Your task to perform on an android device: turn on wifi Image 0: 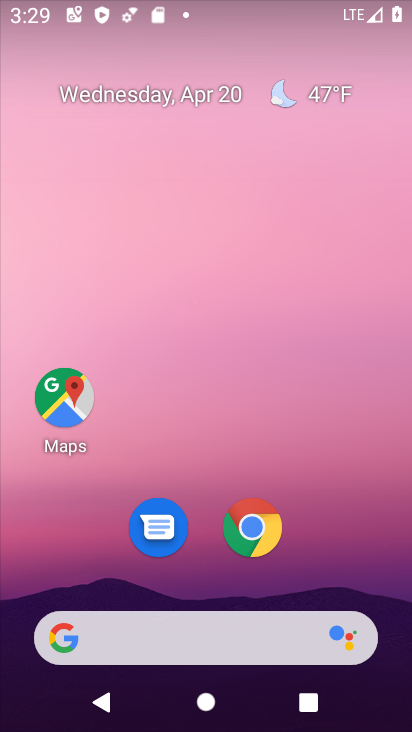
Step 0: drag from (333, 459) to (333, 68)
Your task to perform on an android device: turn on wifi Image 1: 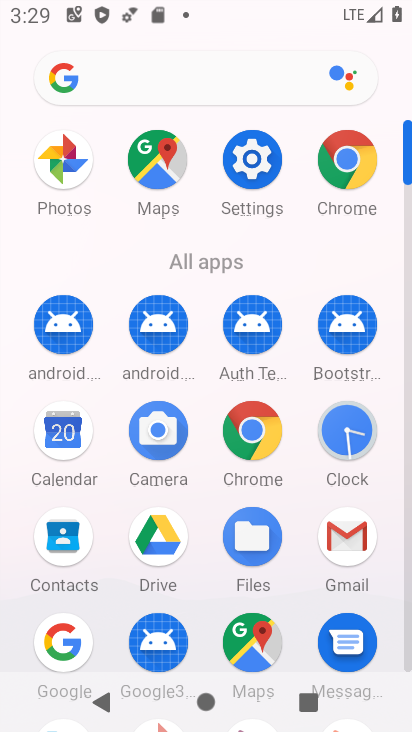
Step 1: click (260, 168)
Your task to perform on an android device: turn on wifi Image 2: 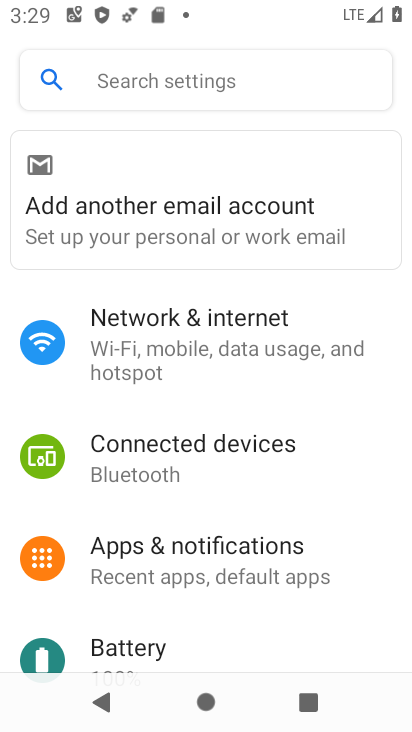
Step 2: click (194, 339)
Your task to perform on an android device: turn on wifi Image 3: 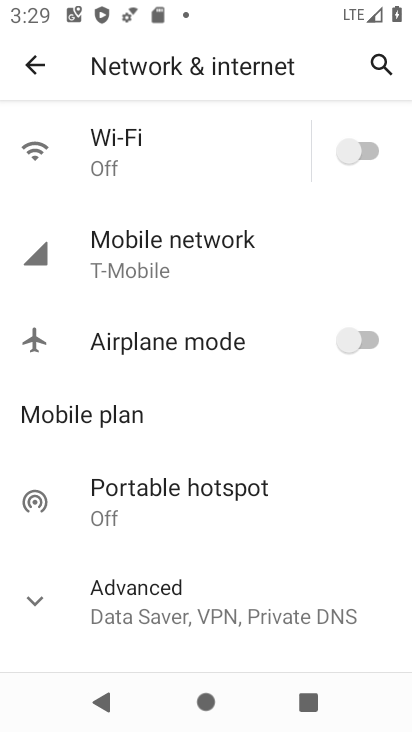
Step 3: click (149, 173)
Your task to perform on an android device: turn on wifi Image 4: 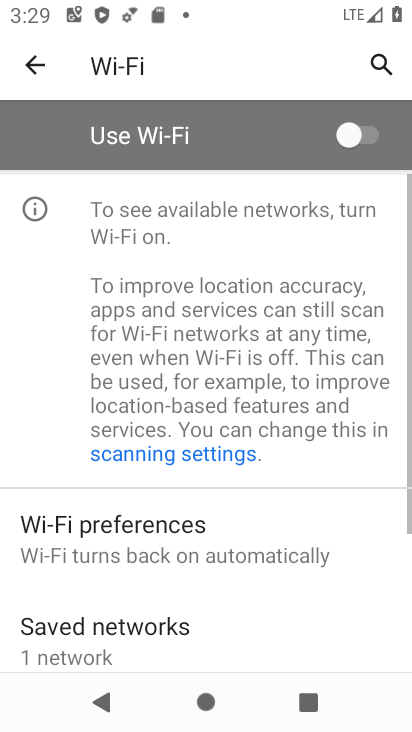
Step 4: click (358, 141)
Your task to perform on an android device: turn on wifi Image 5: 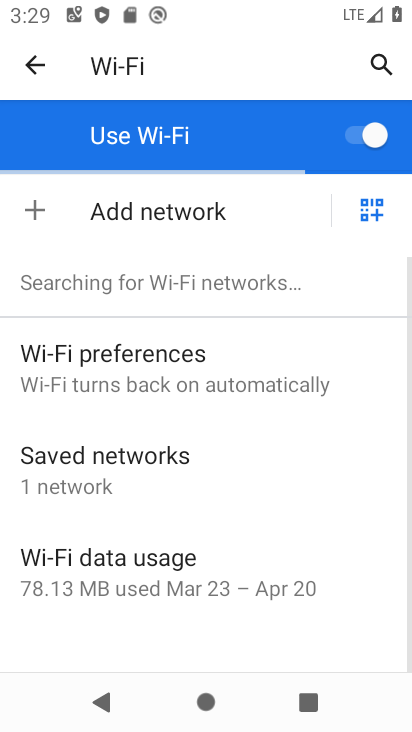
Step 5: task complete